Your task to perform on an android device: refresh tabs in the chrome app Image 0: 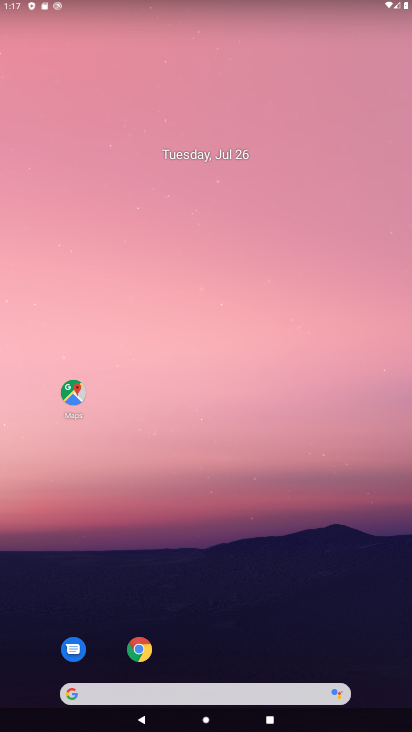
Step 0: click (144, 653)
Your task to perform on an android device: refresh tabs in the chrome app Image 1: 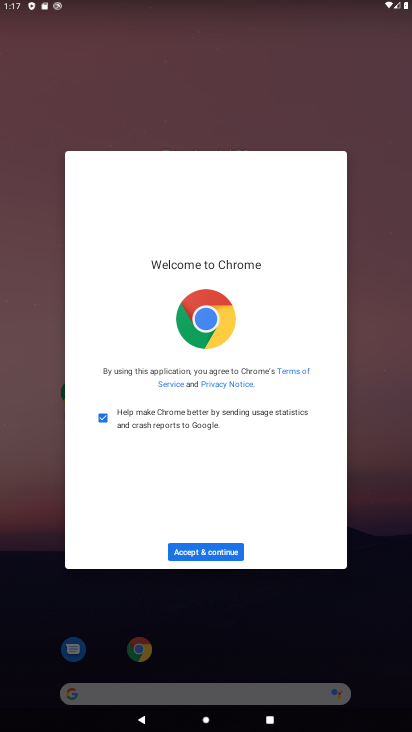
Step 1: click (224, 553)
Your task to perform on an android device: refresh tabs in the chrome app Image 2: 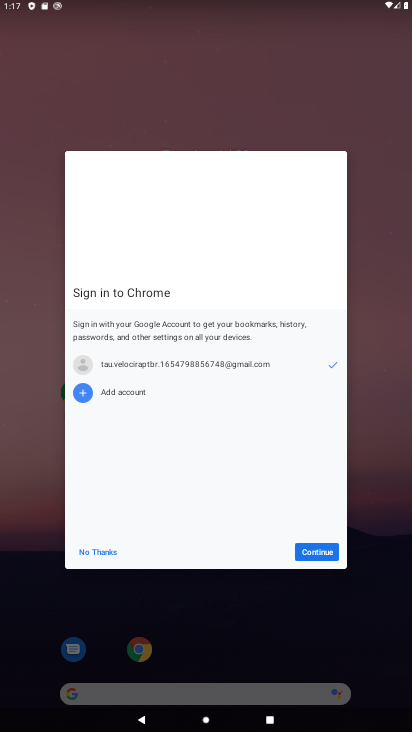
Step 2: click (318, 550)
Your task to perform on an android device: refresh tabs in the chrome app Image 3: 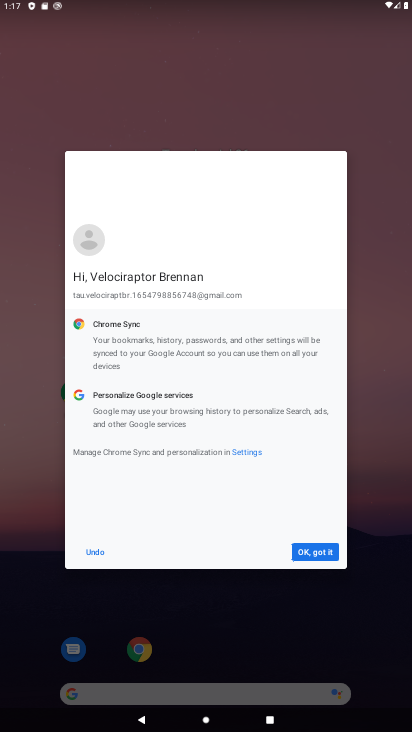
Step 3: click (318, 550)
Your task to perform on an android device: refresh tabs in the chrome app Image 4: 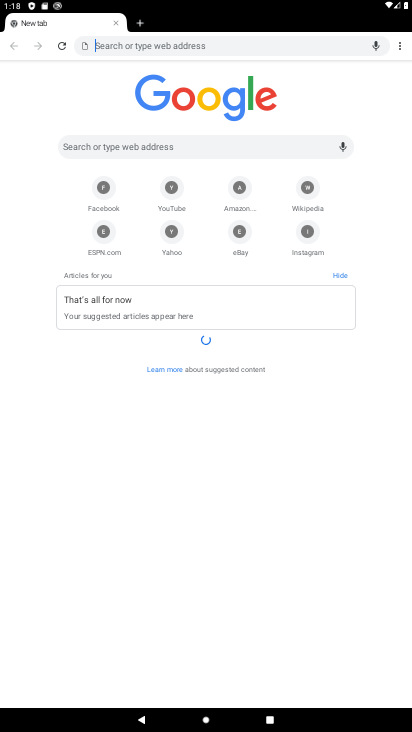
Step 4: click (400, 47)
Your task to perform on an android device: refresh tabs in the chrome app Image 5: 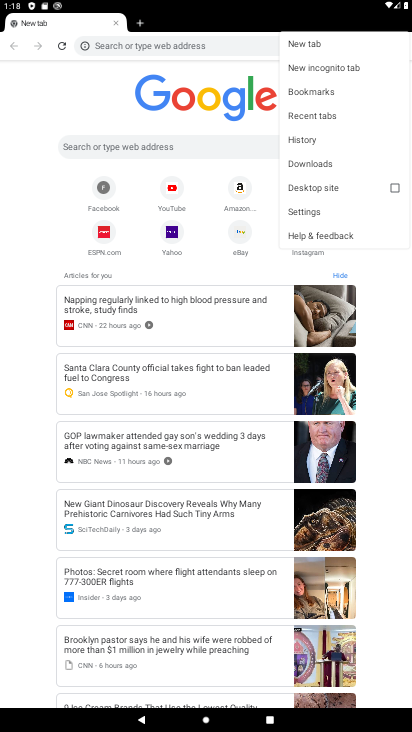
Step 5: click (66, 34)
Your task to perform on an android device: refresh tabs in the chrome app Image 6: 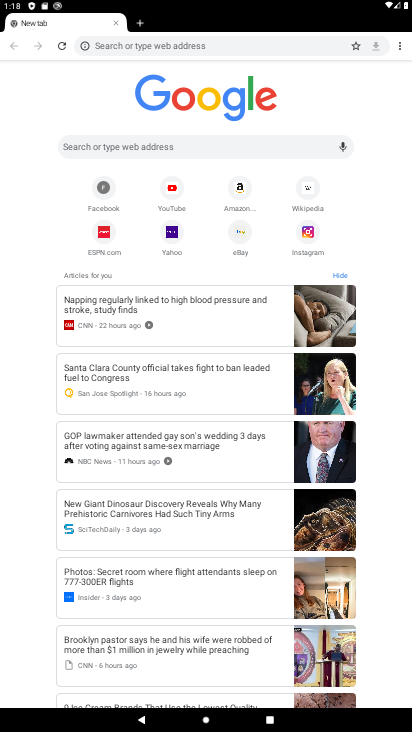
Step 6: click (61, 42)
Your task to perform on an android device: refresh tabs in the chrome app Image 7: 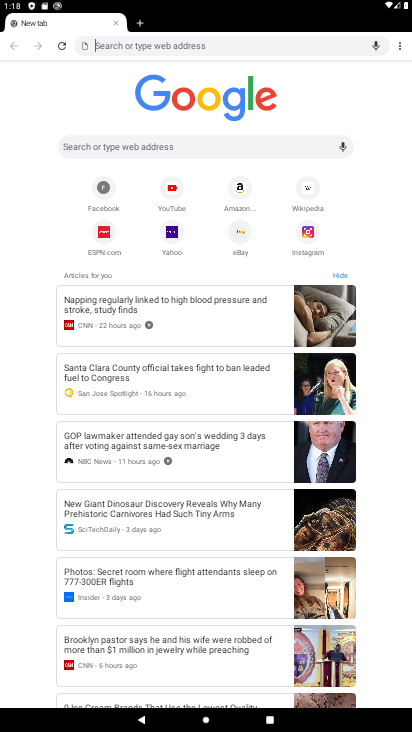
Step 7: task complete